Your task to perform on an android device: turn off improve location accuracy Image 0: 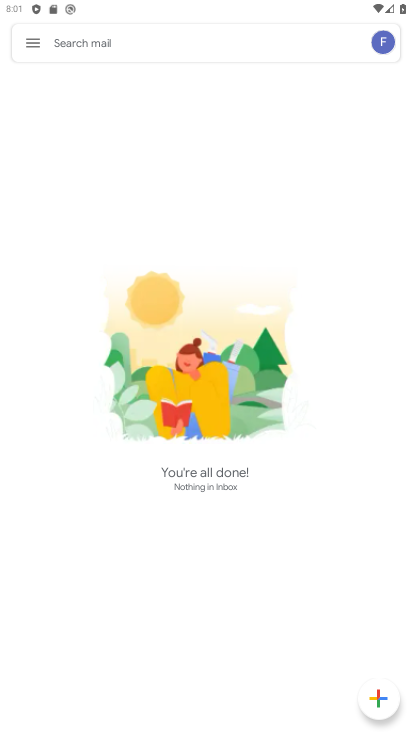
Step 0: drag from (263, 503) to (265, 401)
Your task to perform on an android device: turn off improve location accuracy Image 1: 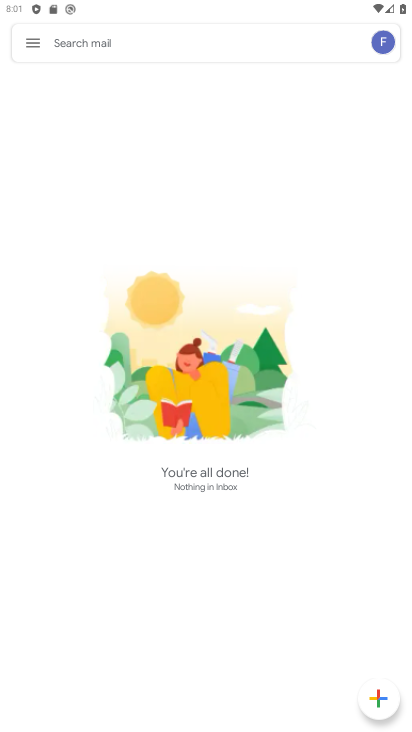
Step 1: press home button
Your task to perform on an android device: turn off improve location accuracy Image 2: 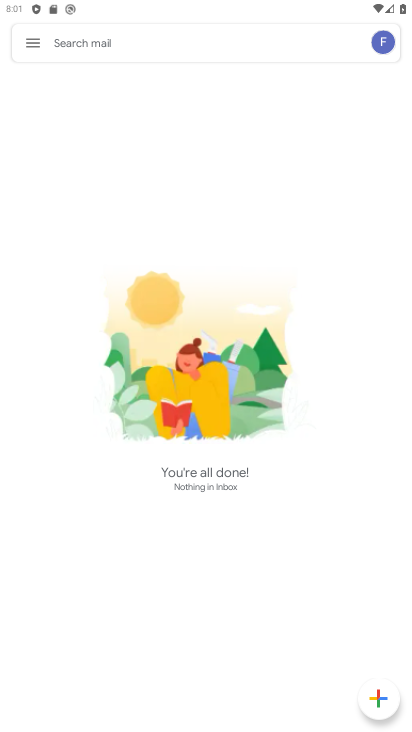
Step 2: press home button
Your task to perform on an android device: turn off improve location accuracy Image 3: 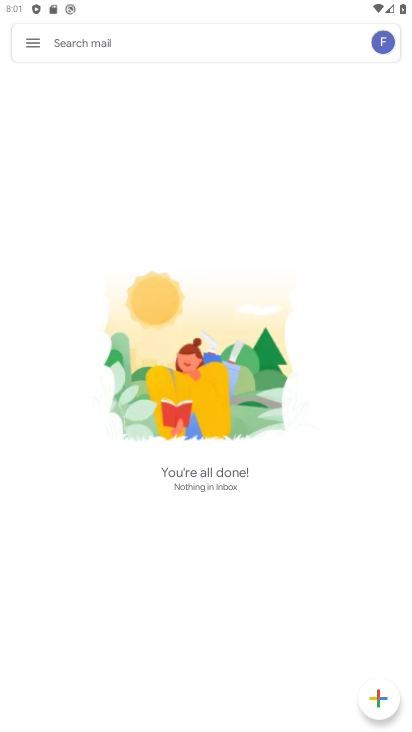
Step 3: click (279, 421)
Your task to perform on an android device: turn off improve location accuracy Image 4: 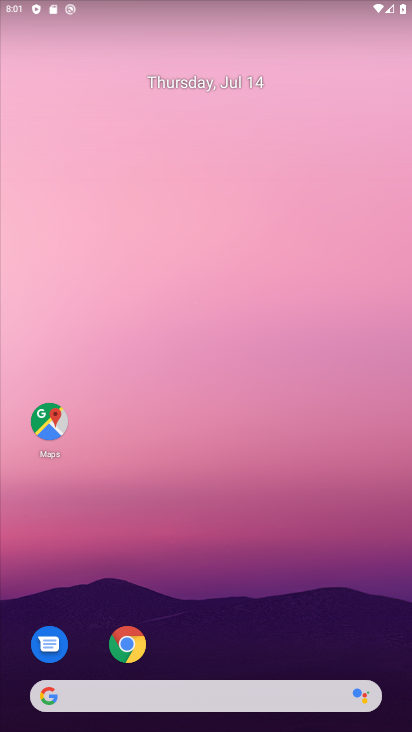
Step 4: drag from (186, 644) to (241, 352)
Your task to perform on an android device: turn off improve location accuracy Image 5: 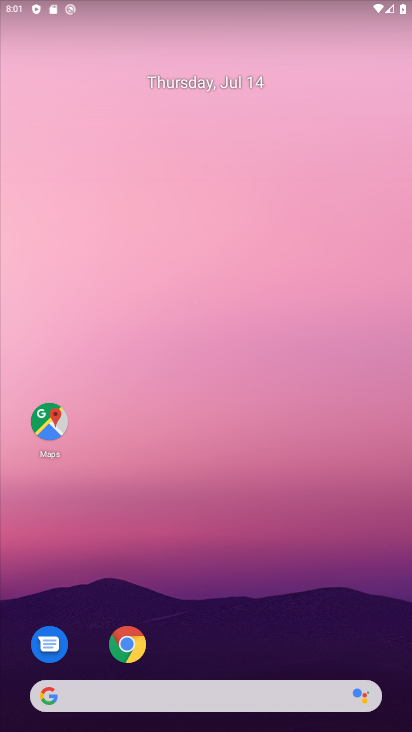
Step 5: drag from (227, 641) to (284, 313)
Your task to perform on an android device: turn off improve location accuracy Image 6: 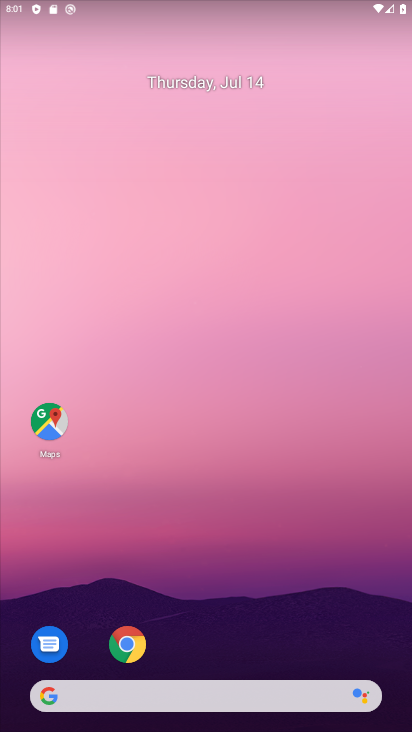
Step 6: drag from (195, 660) to (203, 414)
Your task to perform on an android device: turn off improve location accuracy Image 7: 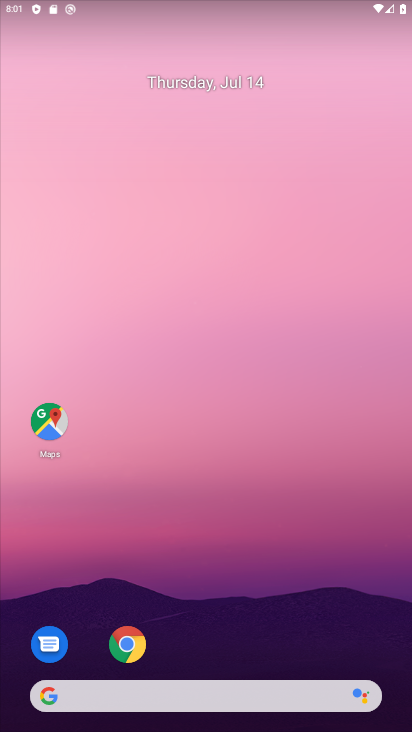
Step 7: drag from (215, 595) to (234, 470)
Your task to perform on an android device: turn off improve location accuracy Image 8: 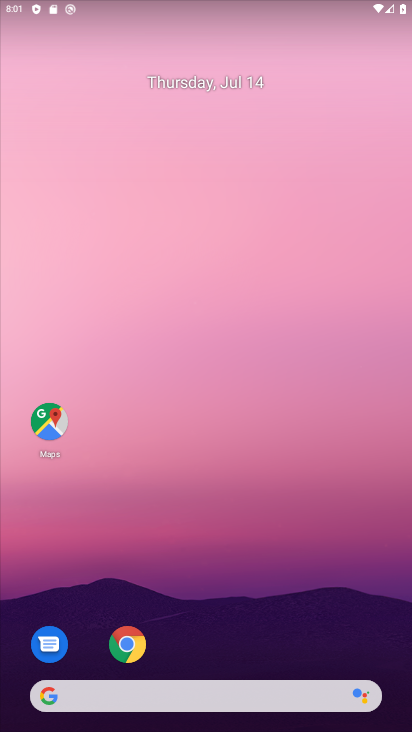
Step 8: drag from (230, 638) to (285, 206)
Your task to perform on an android device: turn off improve location accuracy Image 9: 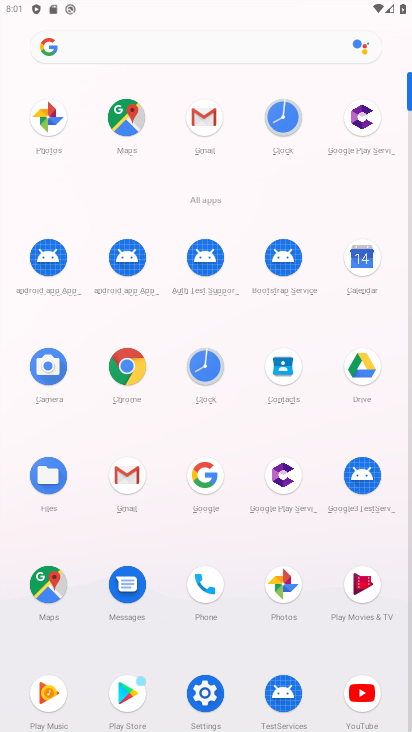
Step 9: click (201, 692)
Your task to perform on an android device: turn off improve location accuracy Image 10: 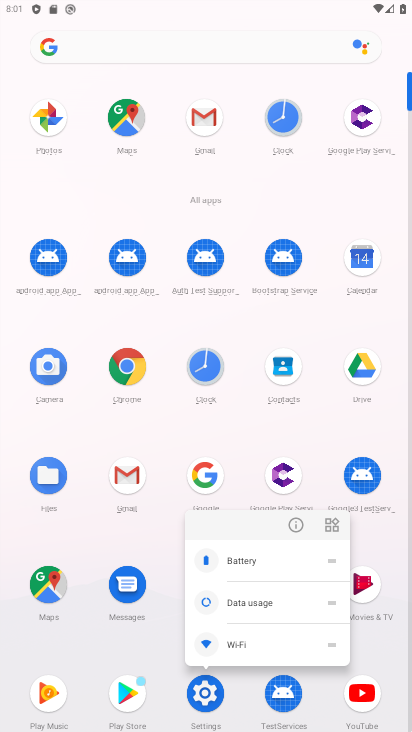
Step 10: click (292, 518)
Your task to perform on an android device: turn off improve location accuracy Image 11: 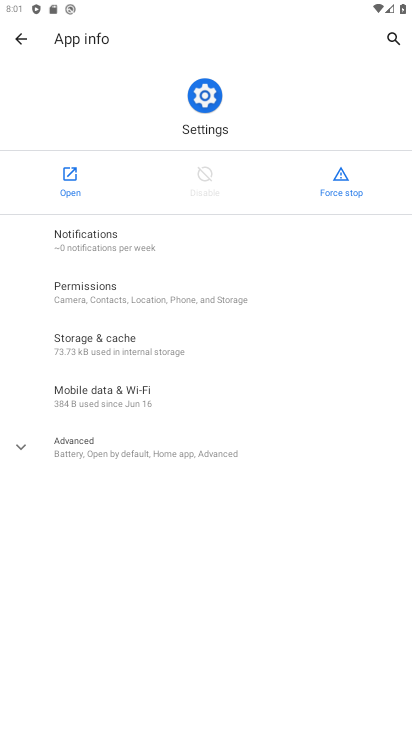
Step 11: click (73, 175)
Your task to perform on an android device: turn off improve location accuracy Image 12: 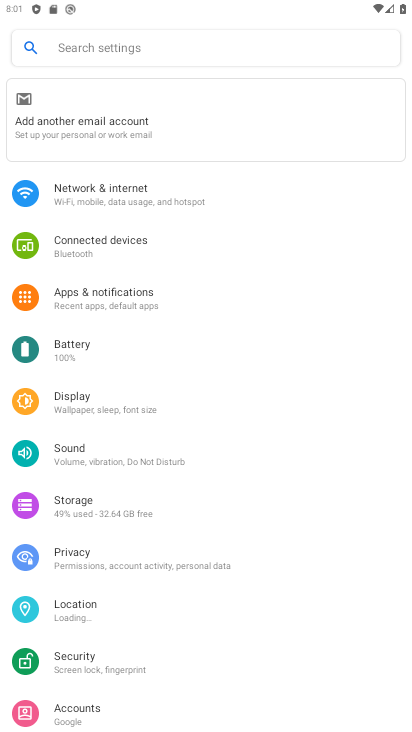
Step 12: drag from (212, 448) to (214, 266)
Your task to perform on an android device: turn off improve location accuracy Image 13: 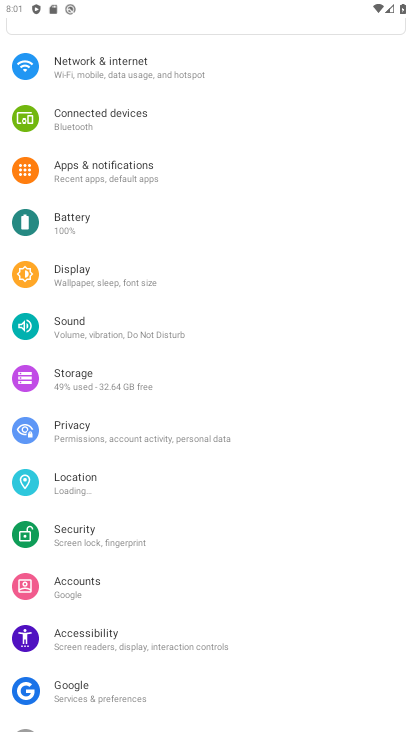
Step 13: drag from (204, 176) to (270, 584)
Your task to perform on an android device: turn off improve location accuracy Image 14: 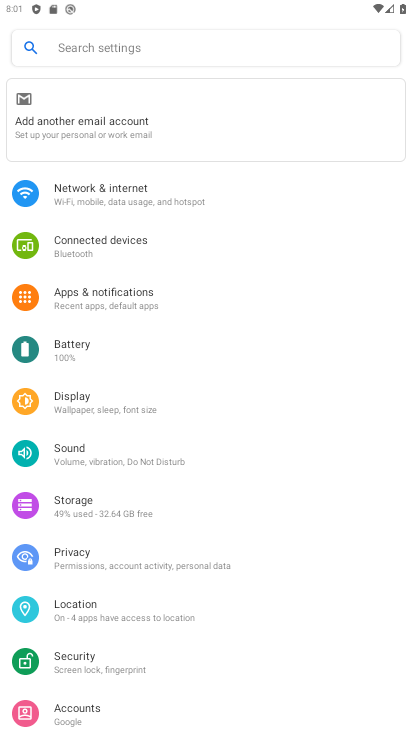
Step 14: drag from (286, 650) to (330, 299)
Your task to perform on an android device: turn off improve location accuracy Image 15: 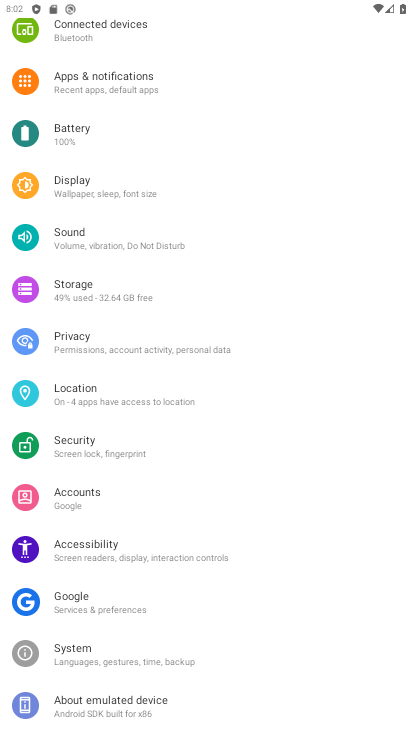
Step 15: click (94, 392)
Your task to perform on an android device: turn off improve location accuracy Image 16: 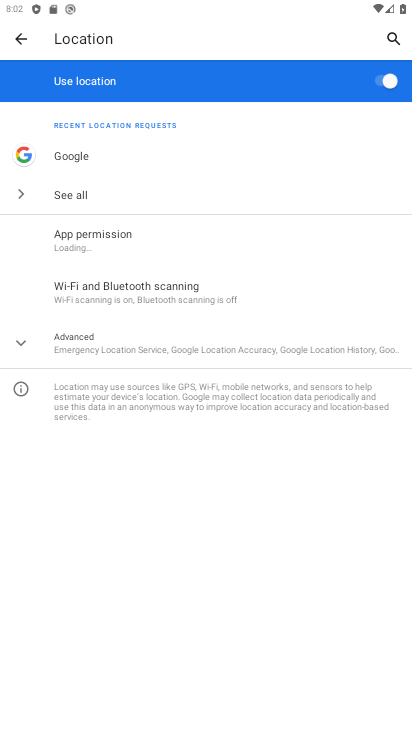
Step 16: drag from (222, 614) to (210, 465)
Your task to perform on an android device: turn off improve location accuracy Image 17: 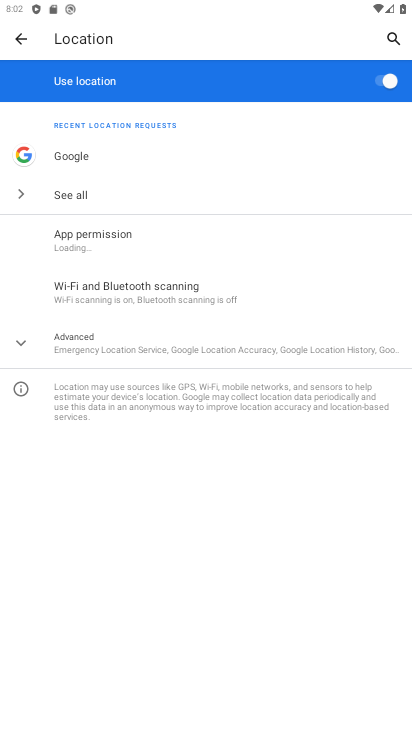
Step 17: click (100, 327)
Your task to perform on an android device: turn off improve location accuracy Image 18: 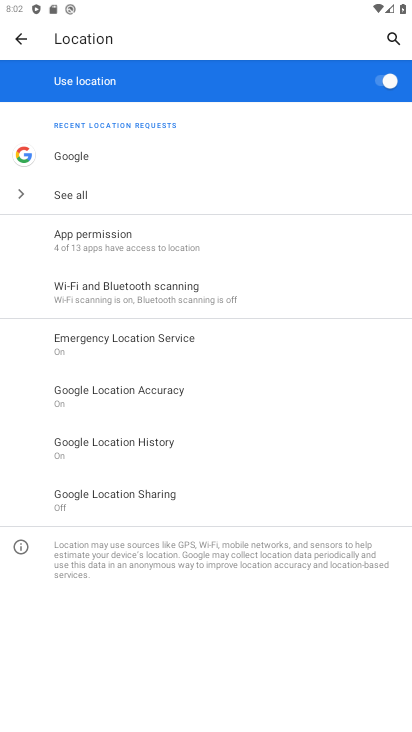
Step 18: click (190, 388)
Your task to perform on an android device: turn off improve location accuracy Image 19: 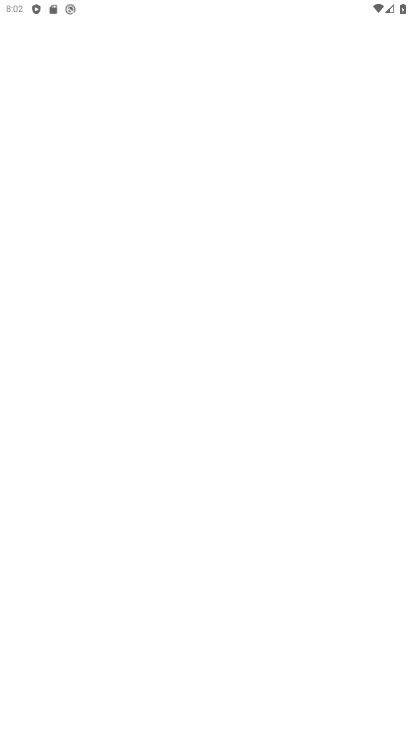
Step 19: drag from (220, 580) to (250, 364)
Your task to perform on an android device: turn off improve location accuracy Image 20: 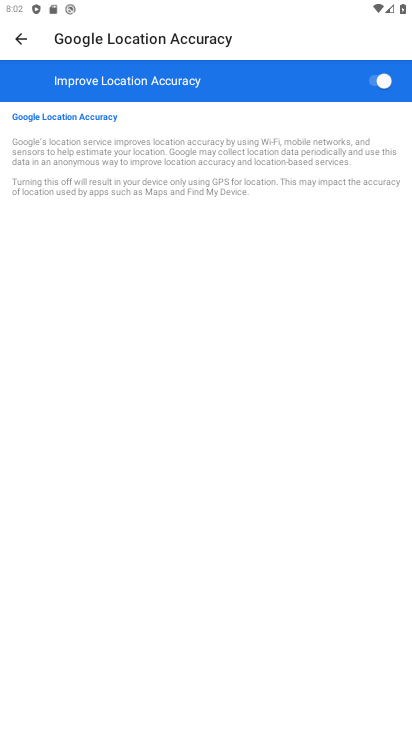
Step 20: drag from (276, 531) to (276, 229)
Your task to perform on an android device: turn off improve location accuracy Image 21: 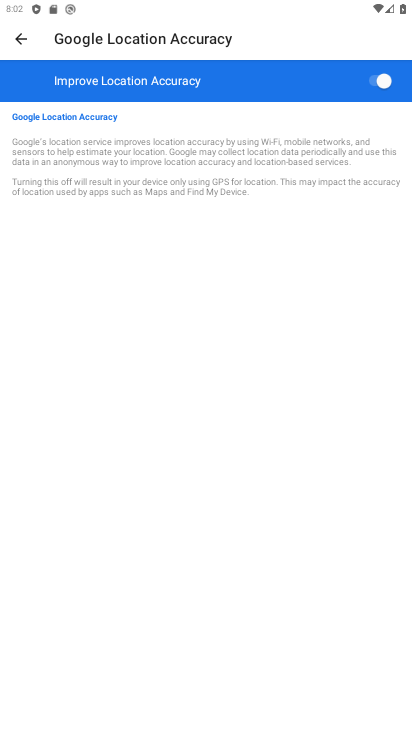
Step 21: drag from (184, 496) to (180, 160)
Your task to perform on an android device: turn off improve location accuracy Image 22: 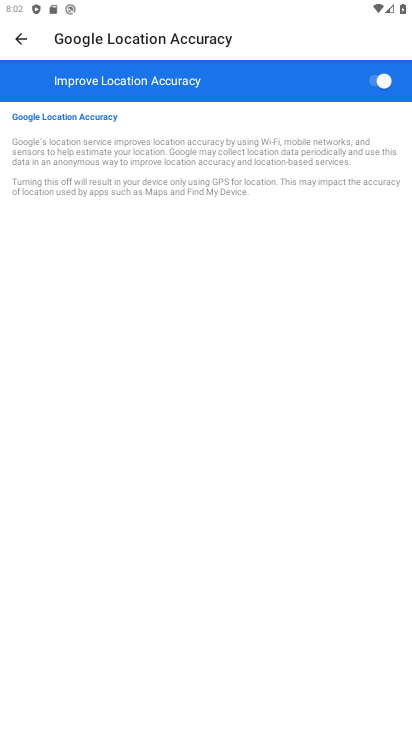
Step 22: drag from (227, 526) to (247, 237)
Your task to perform on an android device: turn off improve location accuracy Image 23: 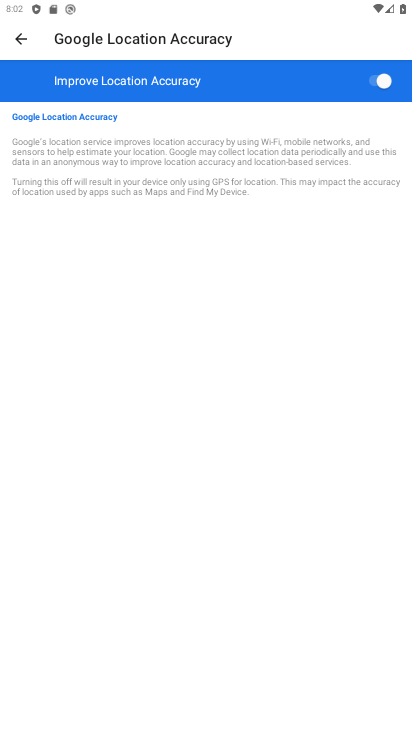
Step 23: click (386, 82)
Your task to perform on an android device: turn off improve location accuracy Image 24: 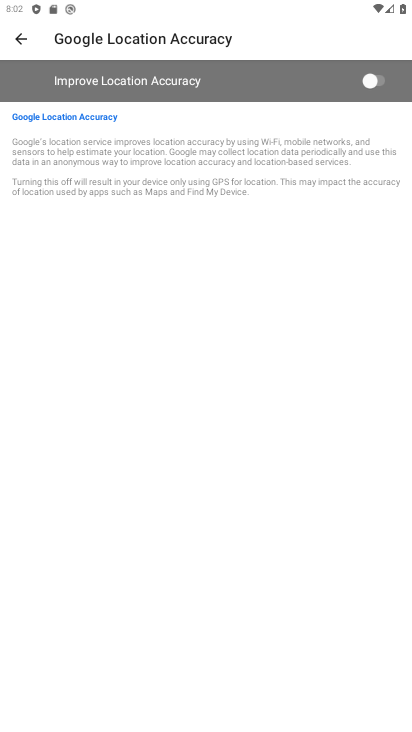
Step 24: task complete